Your task to perform on an android device: uninstall "Spotify: Music and Podcasts" Image 0: 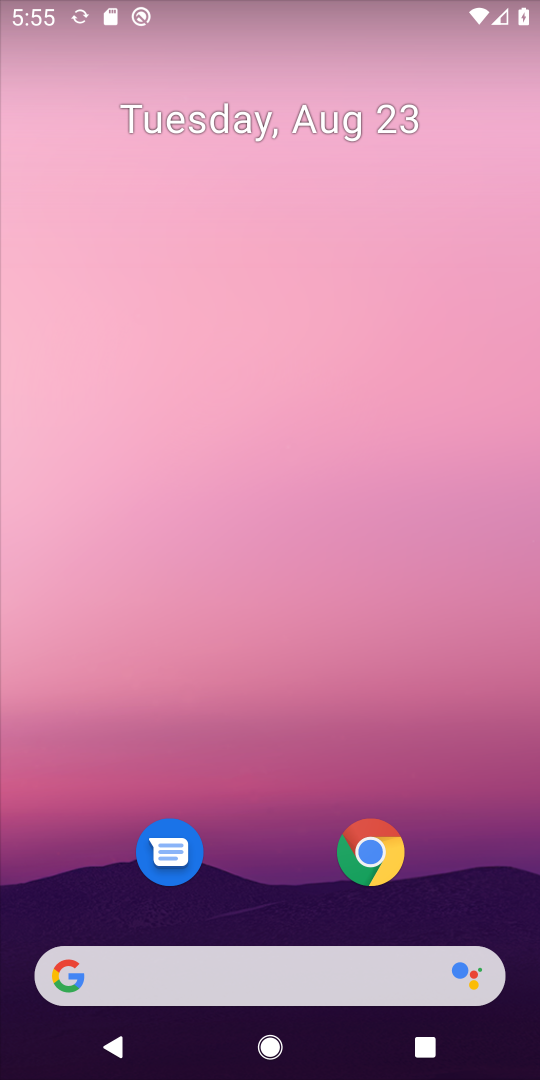
Step 0: drag from (258, 978) to (298, 184)
Your task to perform on an android device: uninstall "Spotify: Music and Podcasts" Image 1: 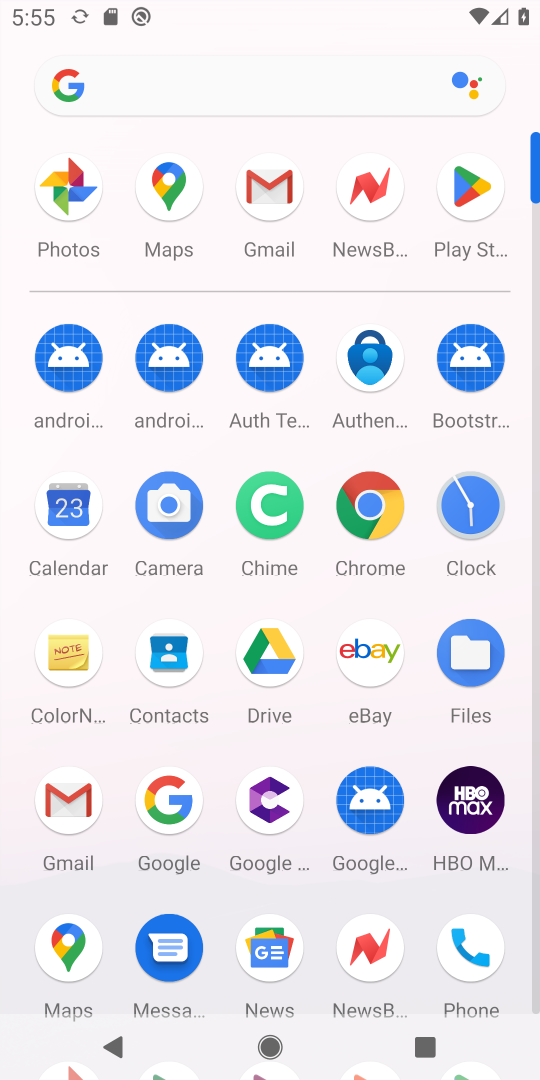
Step 1: click (476, 187)
Your task to perform on an android device: uninstall "Spotify: Music and Podcasts" Image 2: 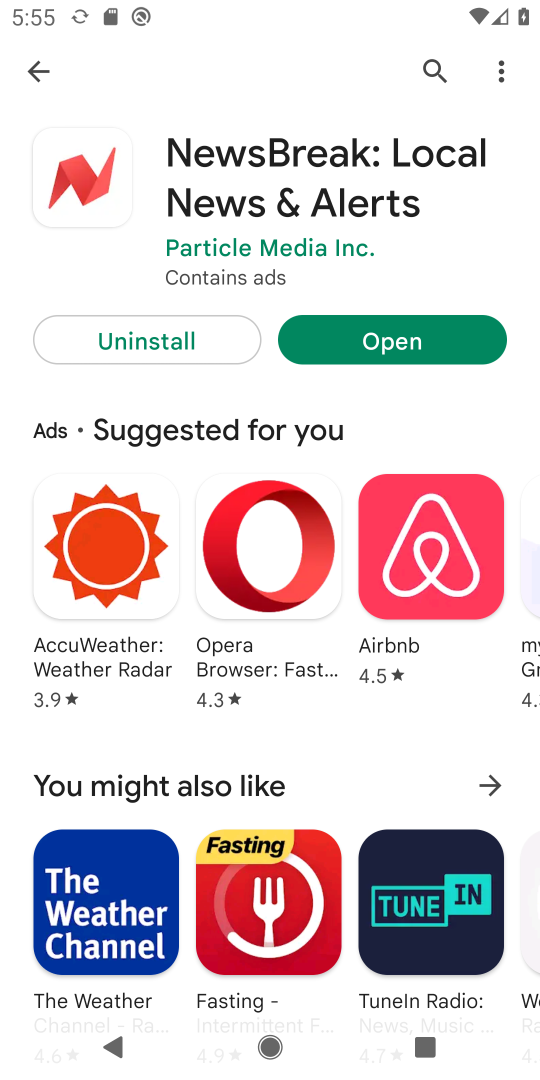
Step 2: press back button
Your task to perform on an android device: uninstall "Spotify: Music and Podcasts" Image 3: 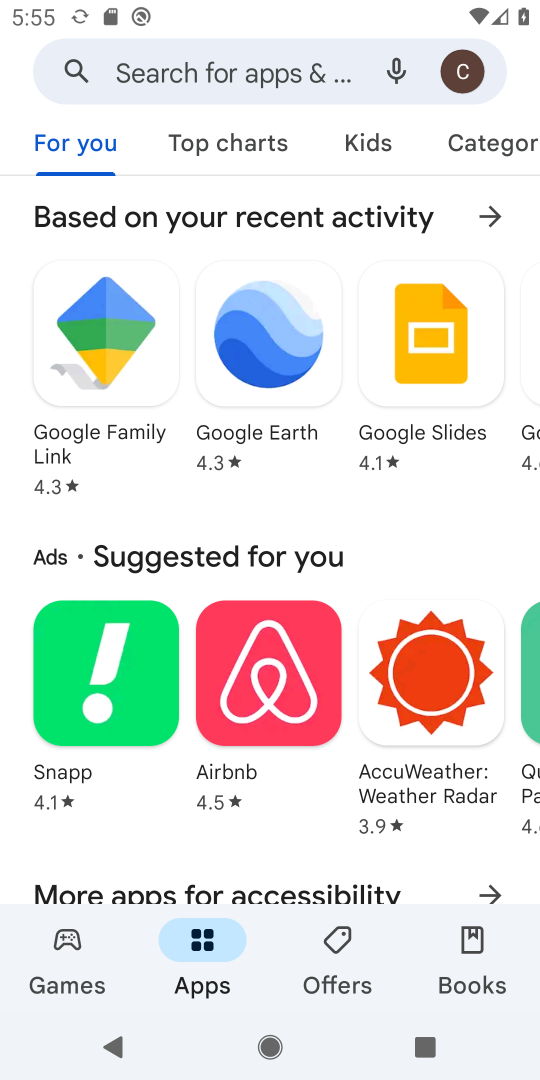
Step 3: click (262, 77)
Your task to perform on an android device: uninstall "Spotify: Music and Podcasts" Image 4: 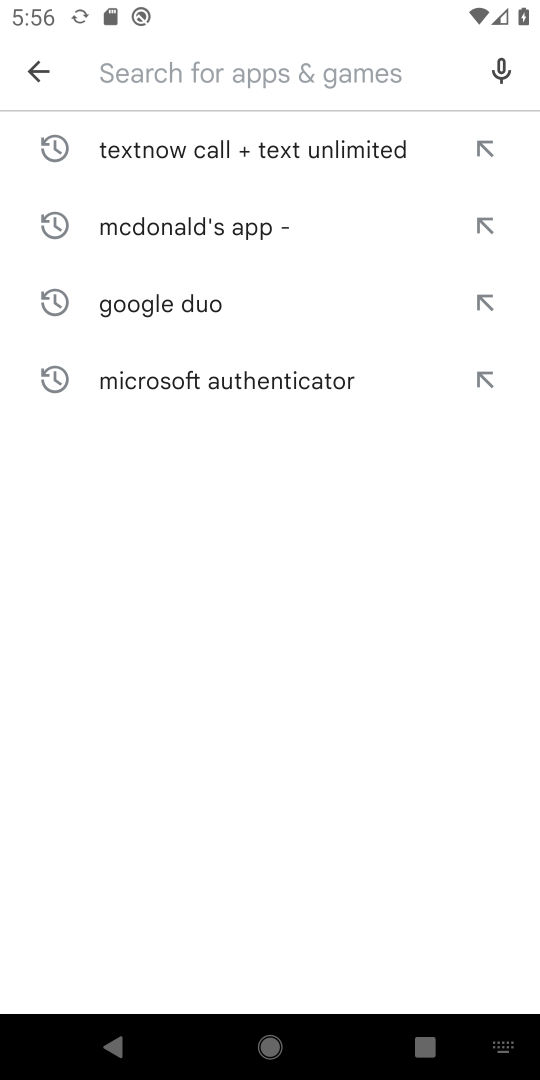
Step 4: type "Spotify: Music and Podcasts"
Your task to perform on an android device: uninstall "Spotify: Music and Podcasts" Image 5: 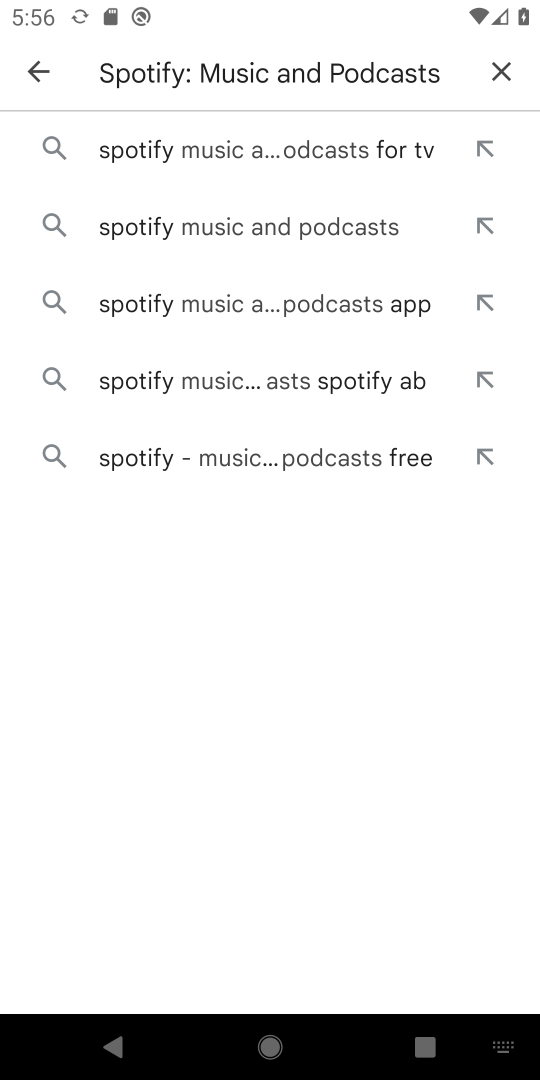
Step 5: click (262, 151)
Your task to perform on an android device: uninstall "Spotify: Music and Podcasts" Image 6: 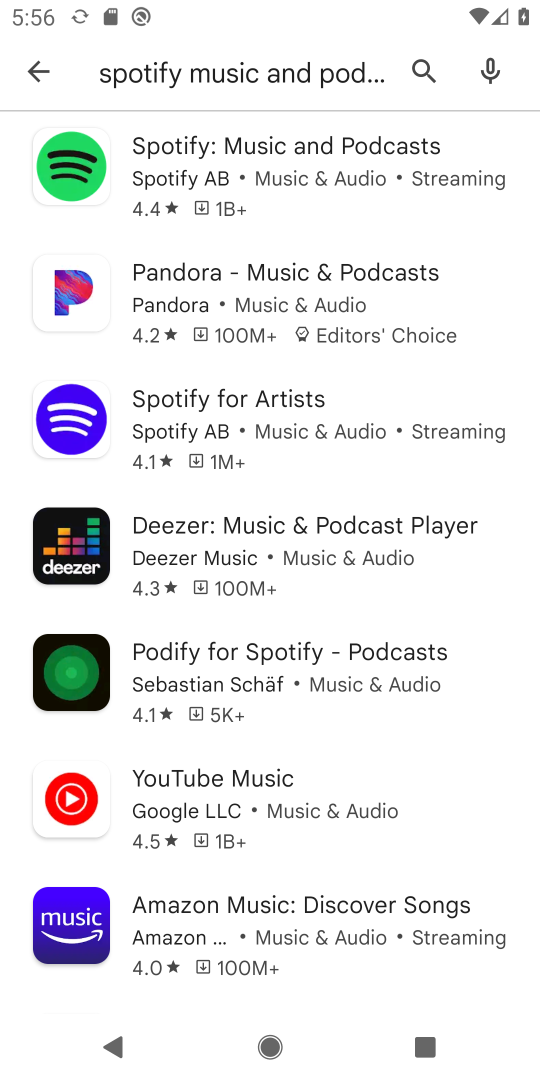
Step 6: click (262, 151)
Your task to perform on an android device: uninstall "Spotify: Music and Podcasts" Image 7: 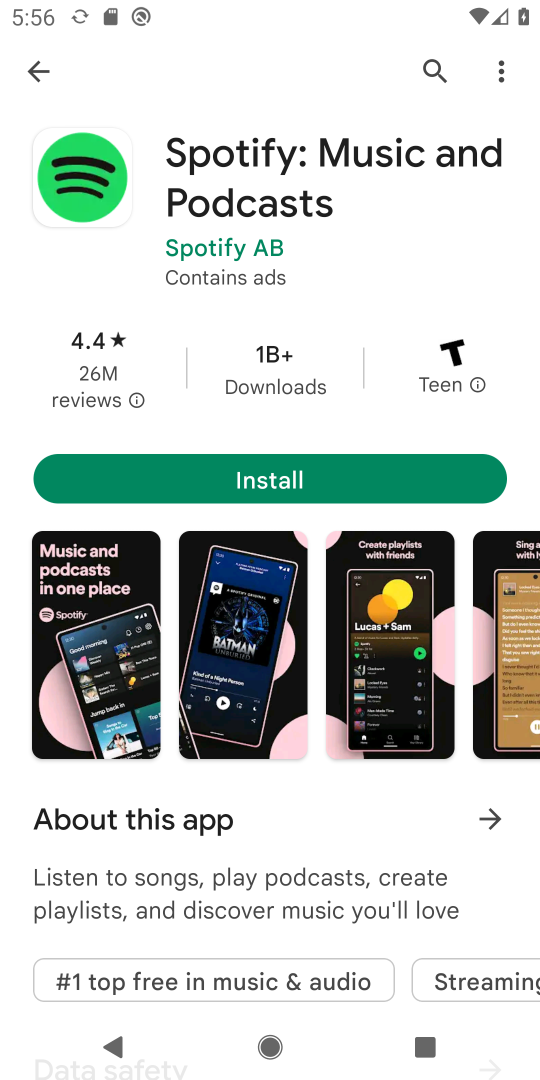
Step 7: task complete